Your task to perform on an android device: Open network settings Image 0: 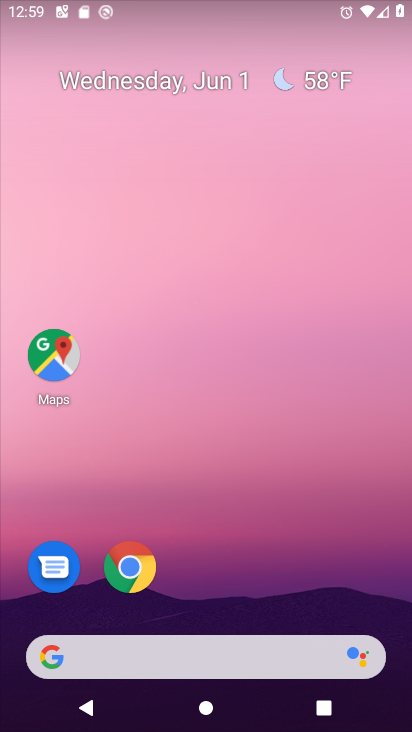
Step 0: drag from (231, 567) to (228, 100)
Your task to perform on an android device: Open network settings Image 1: 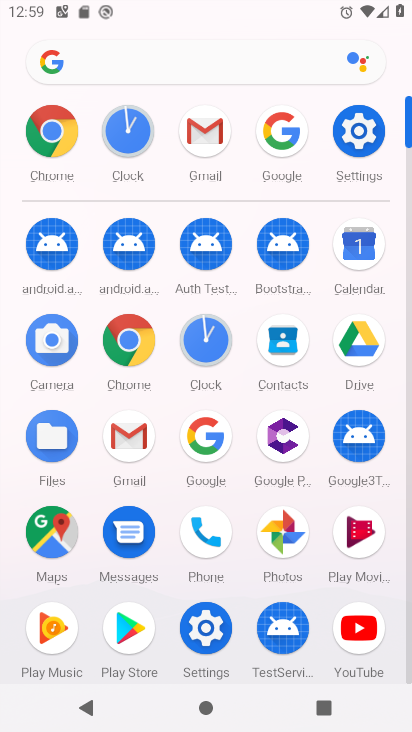
Step 1: click (356, 125)
Your task to perform on an android device: Open network settings Image 2: 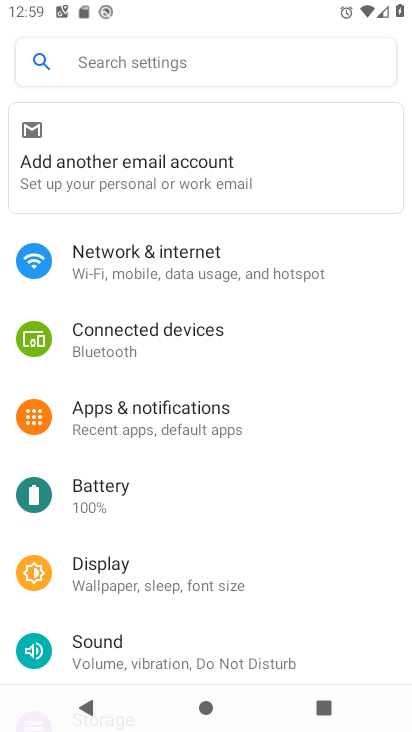
Step 2: click (139, 248)
Your task to perform on an android device: Open network settings Image 3: 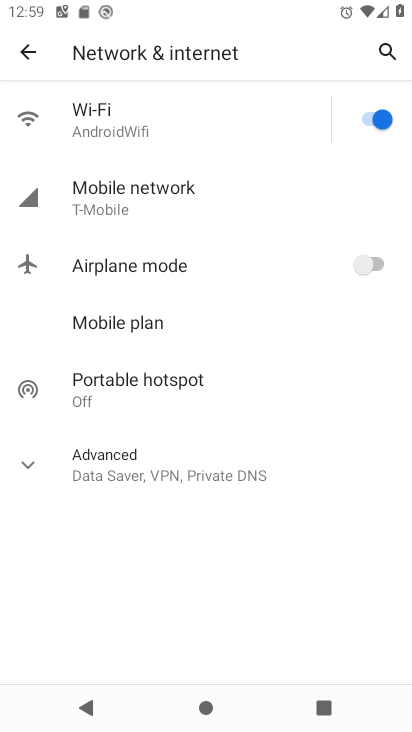
Step 3: click (144, 187)
Your task to perform on an android device: Open network settings Image 4: 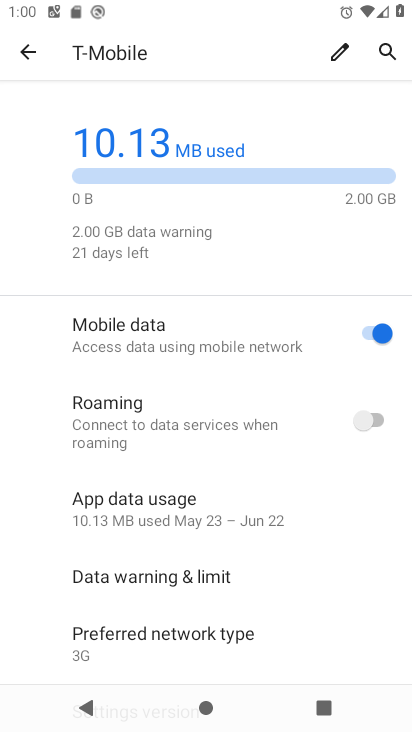
Step 4: task complete